Your task to perform on an android device: turn on the 12-hour format for clock Image 0: 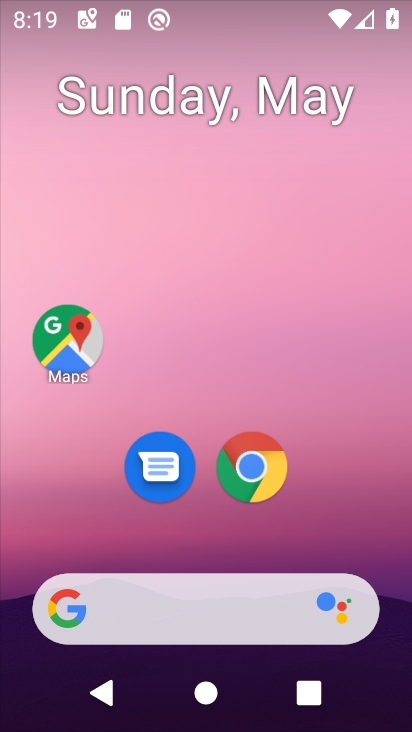
Step 0: drag from (368, 523) to (331, 152)
Your task to perform on an android device: turn on the 12-hour format for clock Image 1: 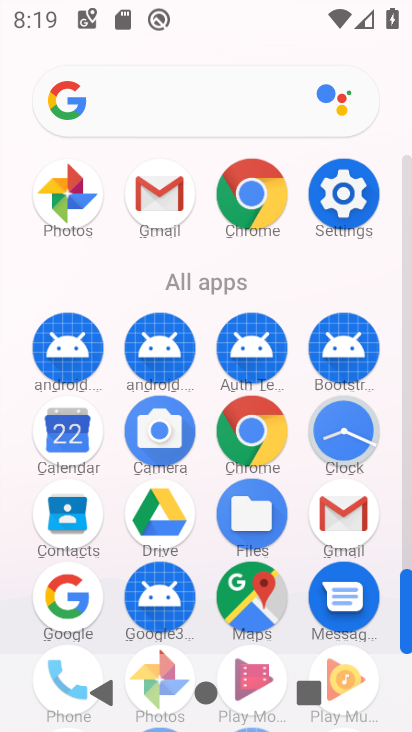
Step 1: click (360, 420)
Your task to perform on an android device: turn on the 12-hour format for clock Image 2: 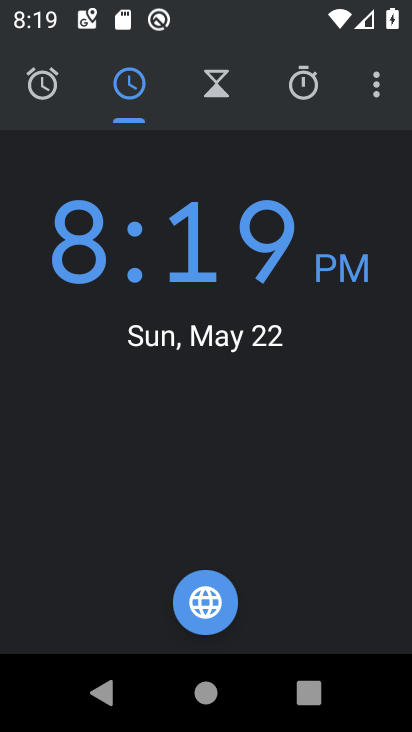
Step 2: click (389, 94)
Your task to perform on an android device: turn on the 12-hour format for clock Image 3: 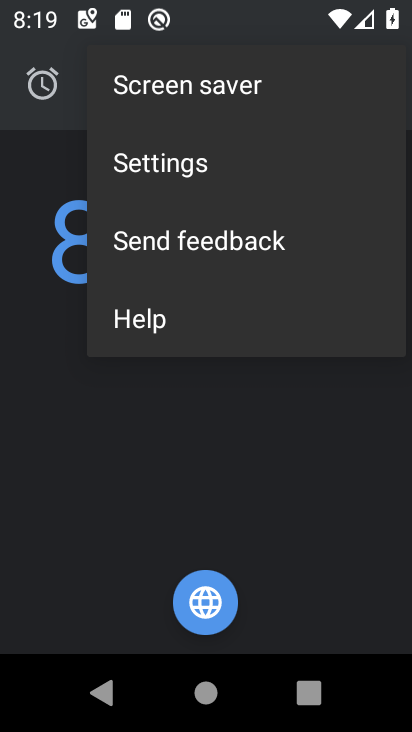
Step 3: click (226, 159)
Your task to perform on an android device: turn on the 12-hour format for clock Image 4: 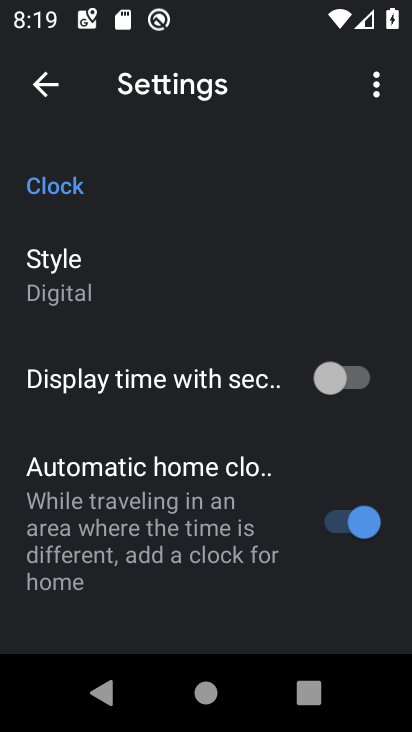
Step 4: drag from (254, 561) to (220, 210)
Your task to perform on an android device: turn on the 12-hour format for clock Image 5: 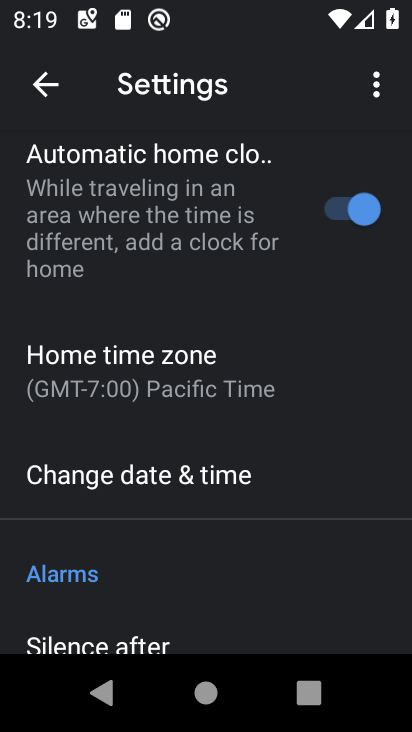
Step 5: click (209, 478)
Your task to perform on an android device: turn on the 12-hour format for clock Image 6: 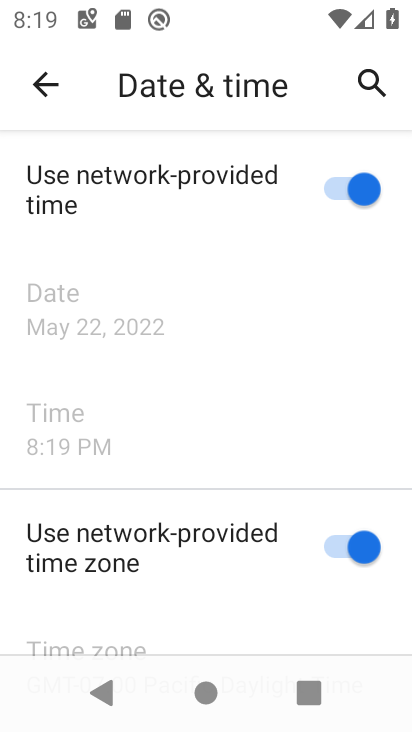
Step 6: task complete